Your task to perform on an android device: open a new tab in the chrome app Image 0: 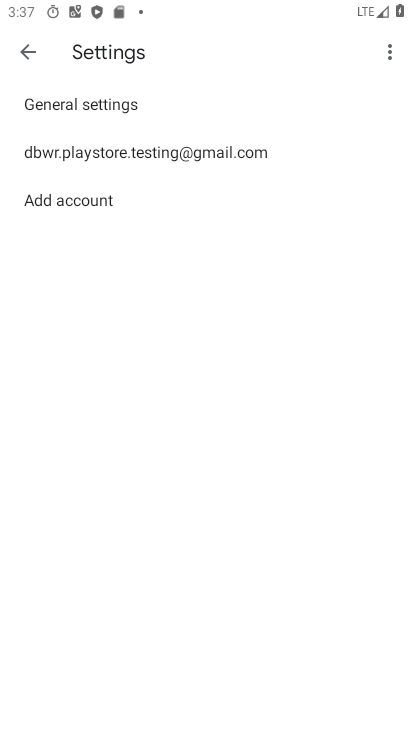
Step 0: press home button
Your task to perform on an android device: open a new tab in the chrome app Image 1: 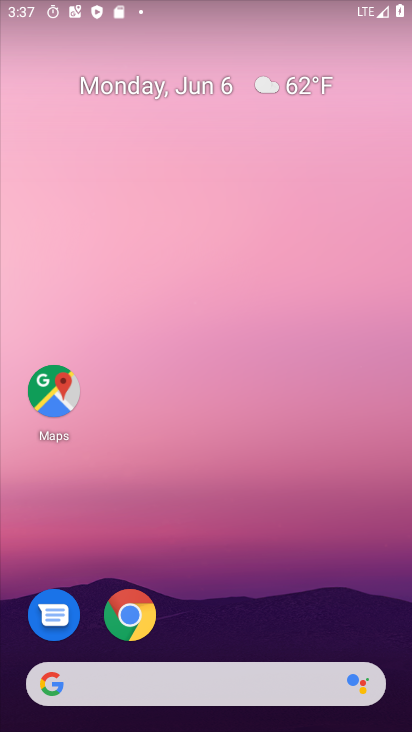
Step 1: drag from (270, 723) to (247, 115)
Your task to perform on an android device: open a new tab in the chrome app Image 2: 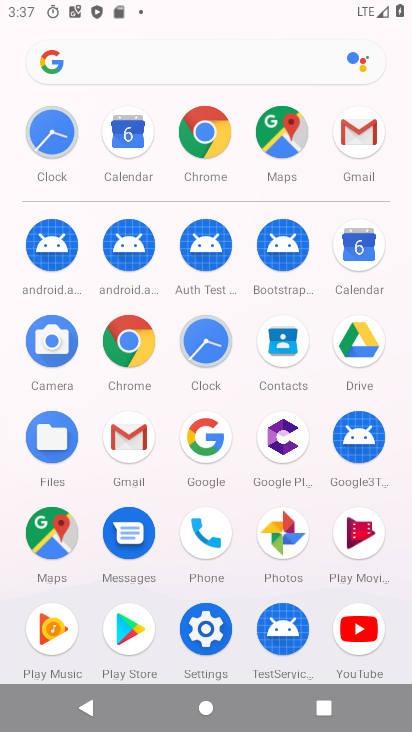
Step 2: click (127, 355)
Your task to perform on an android device: open a new tab in the chrome app Image 3: 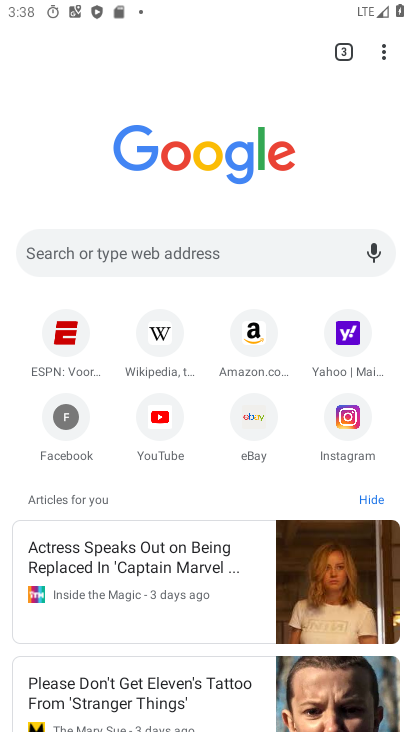
Step 3: task complete